Your task to perform on an android device: When is my next meeting? Image 0: 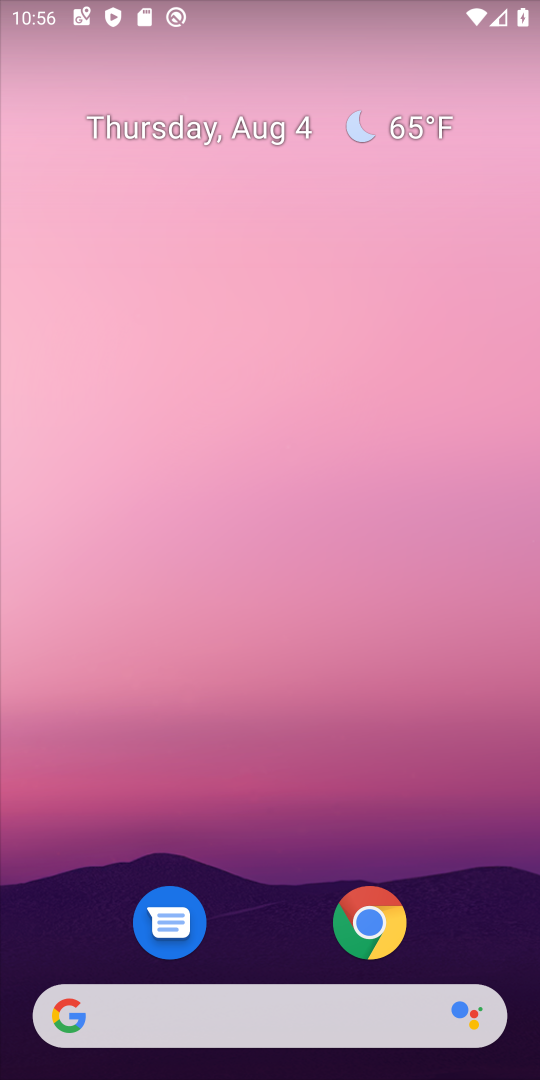
Step 0: press home button
Your task to perform on an android device: When is my next meeting? Image 1: 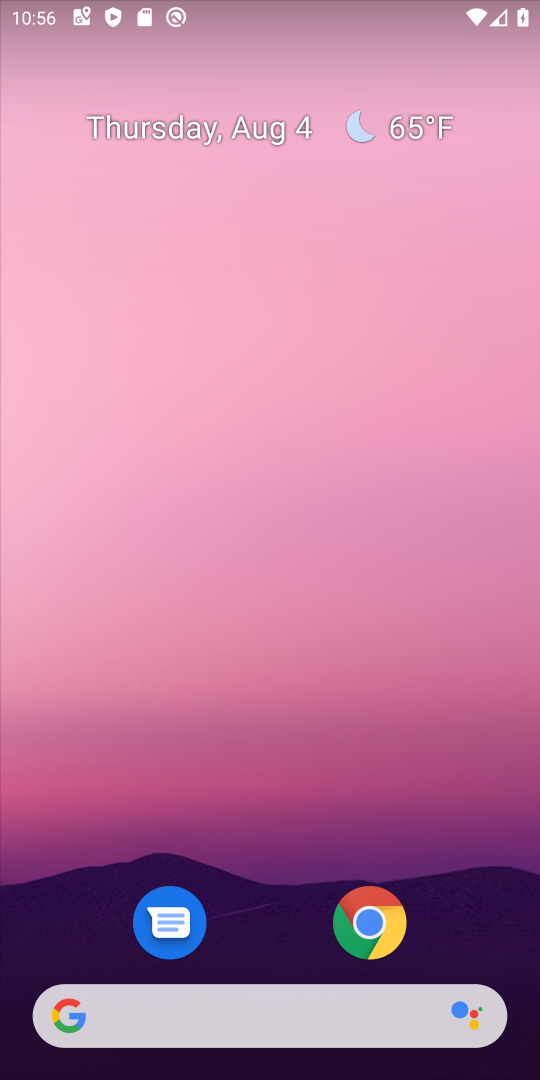
Step 1: drag from (228, 983) to (237, 386)
Your task to perform on an android device: When is my next meeting? Image 2: 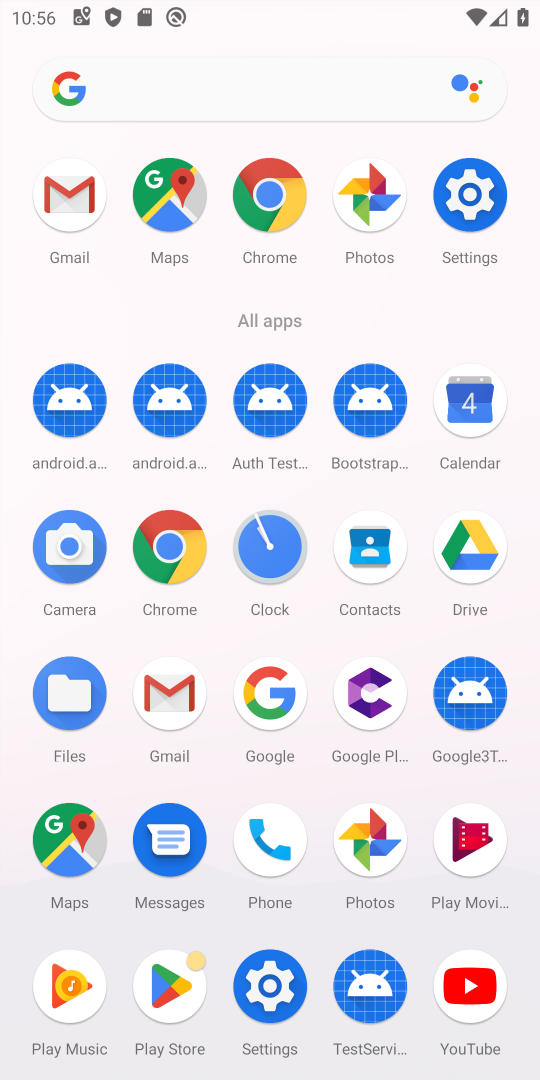
Step 2: click (482, 392)
Your task to perform on an android device: When is my next meeting? Image 3: 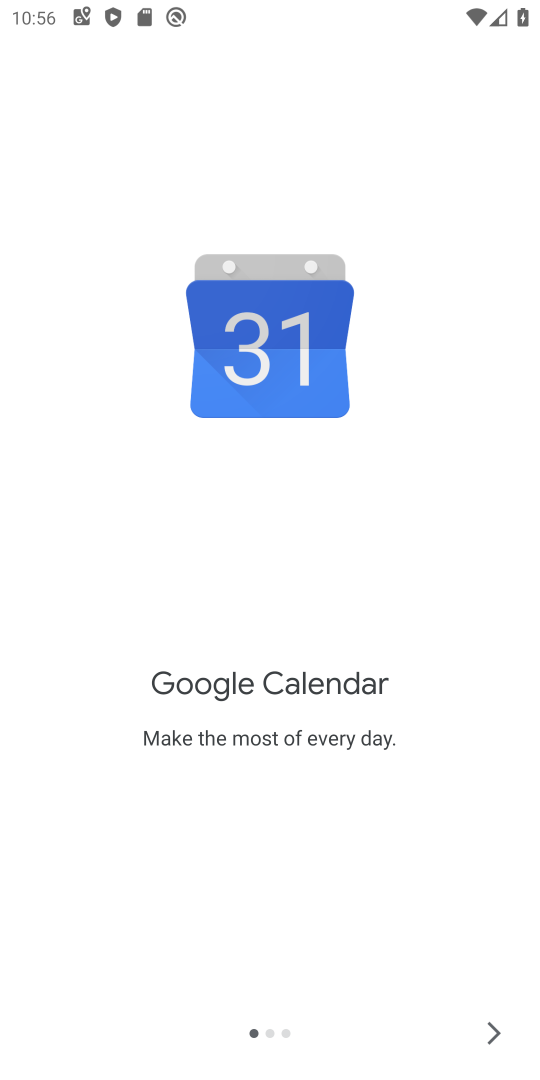
Step 3: click (491, 1025)
Your task to perform on an android device: When is my next meeting? Image 4: 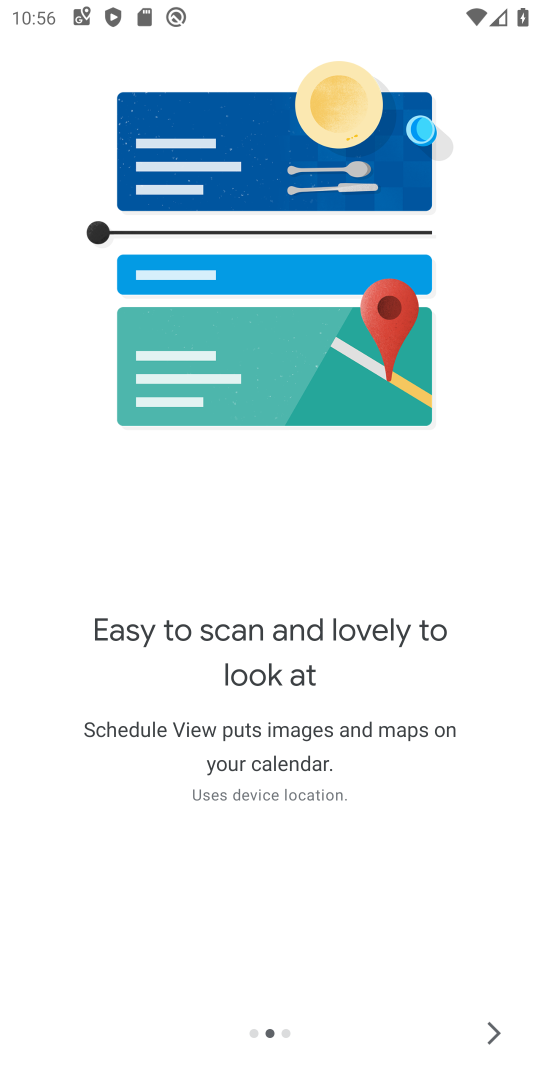
Step 4: click (491, 1025)
Your task to perform on an android device: When is my next meeting? Image 5: 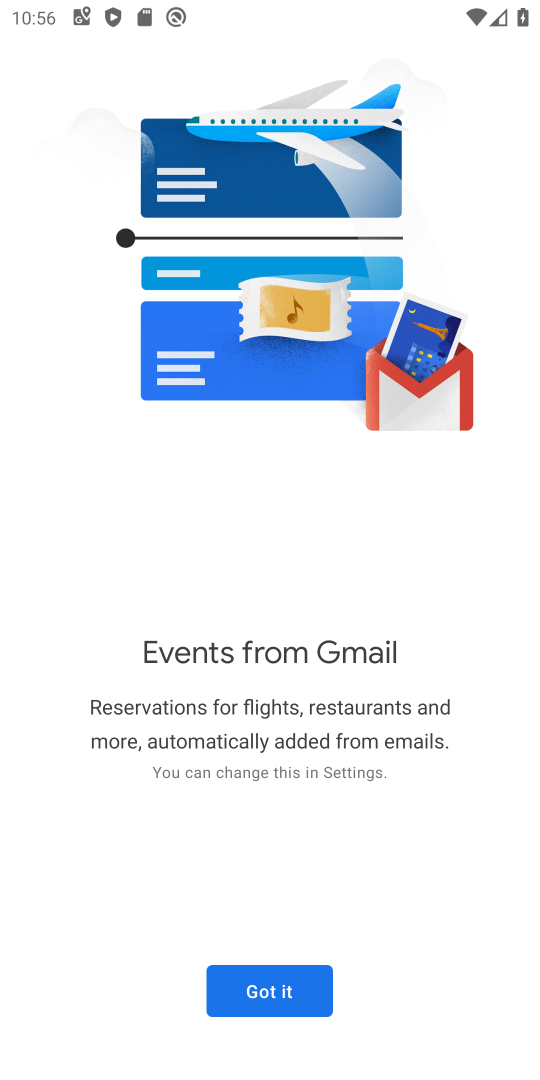
Step 5: click (223, 1004)
Your task to perform on an android device: When is my next meeting? Image 6: 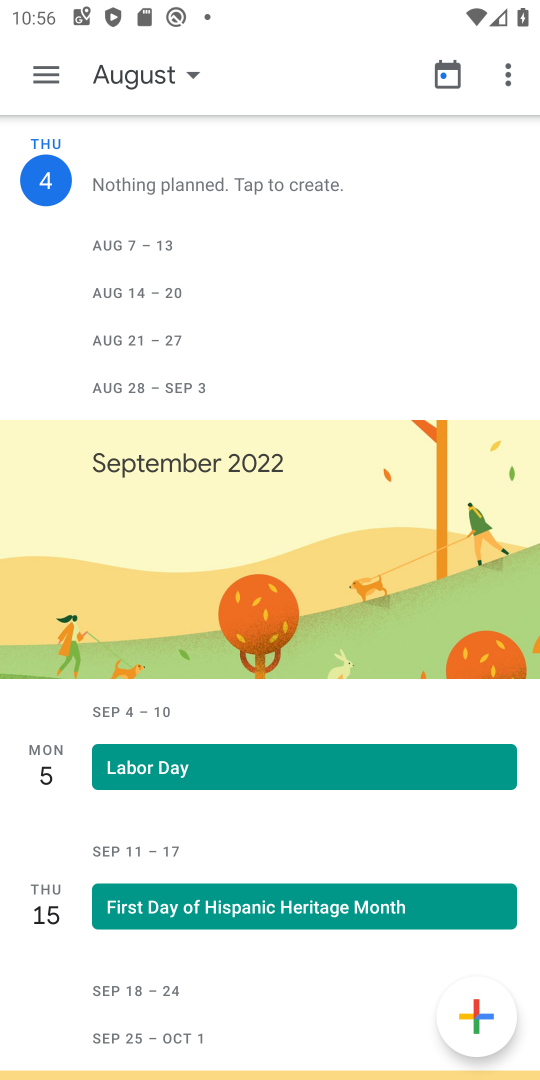
Step 6: click (124, 76)
Your task to perform on an android device: When is my next meeting? Image 7: 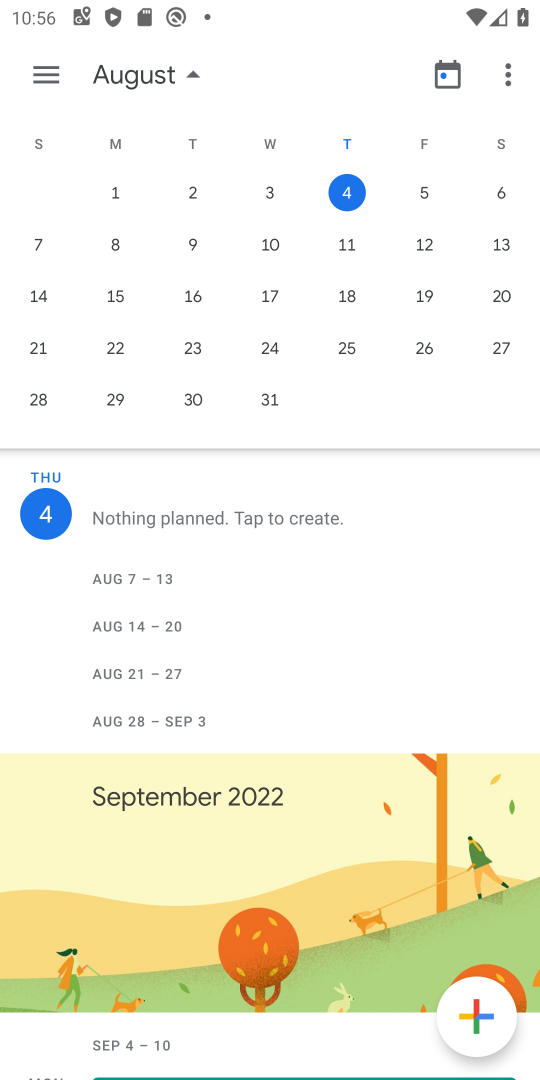
Step 7: click (409, 192)
Your task to perform on an android device: When is my next meeting? Image 8: 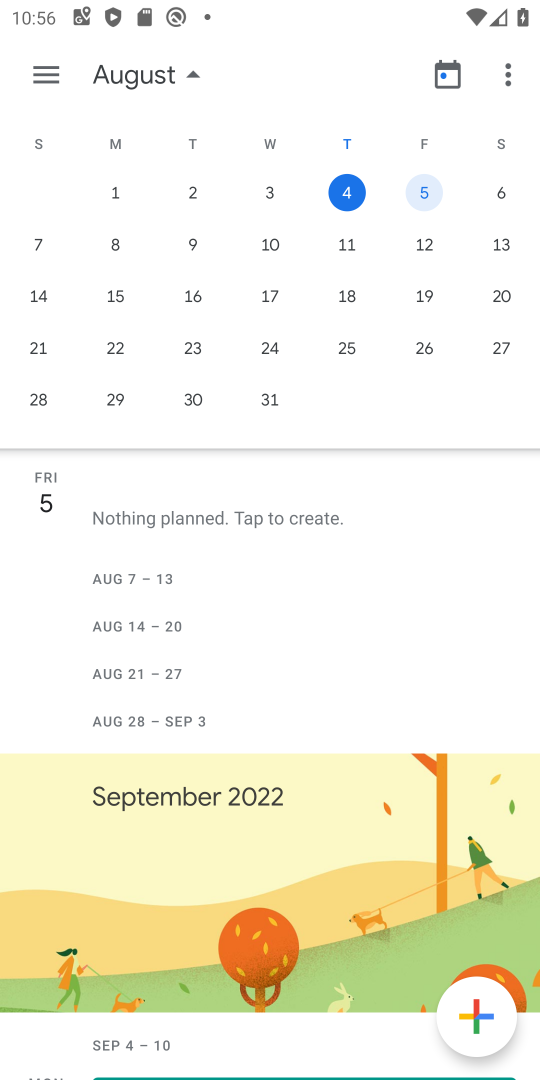
Step 8: task complete